Your task to perform on an android device: turn notification dots off Image 0: 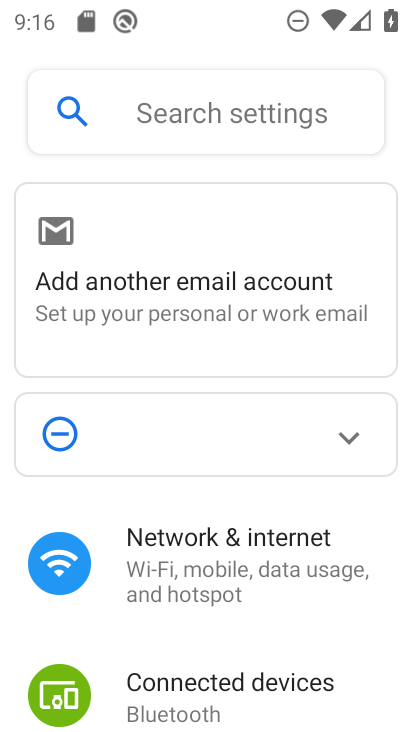
Step 0: drag from (397, 602) to (397, 257)
Your task to perform on an android device: turn notification dots off Image 1: 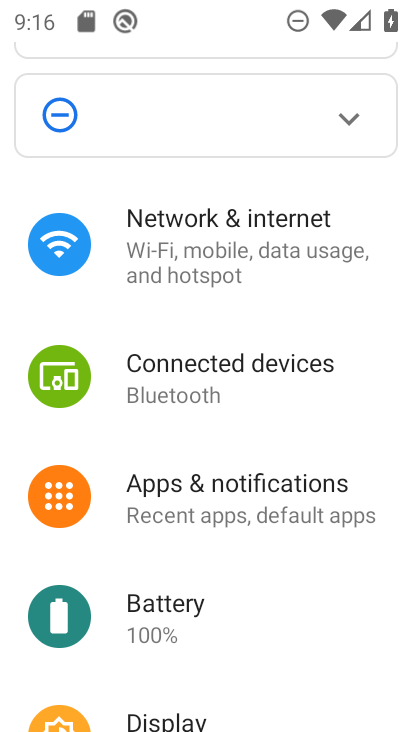
Step 1: click (222, 506)
Your task to perform on an android device: turn notification dots off Image 2: 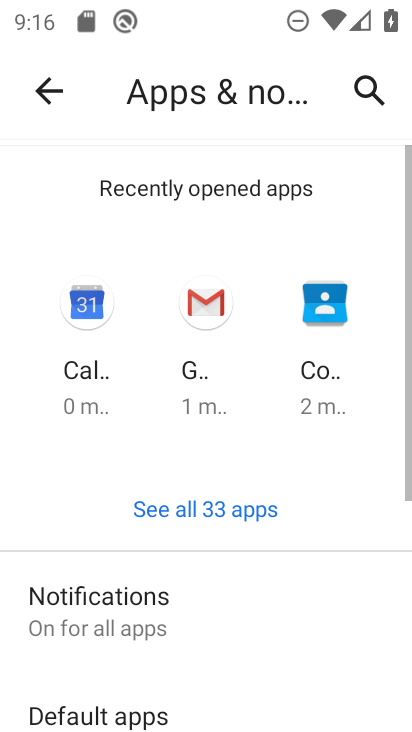
Step 2: click (76, 617)
Your task to perform on an android device: turn notification dots off Image 3: 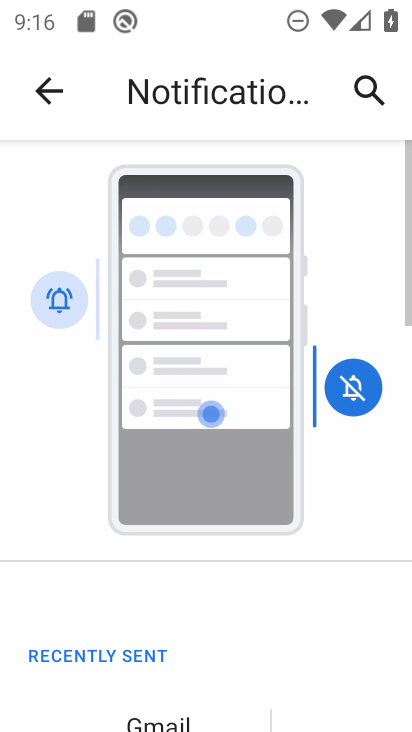
Step 3: drag from (283, 639) to (275, 139)
Your task to perform on an android device: turn notification dots off Image 4: 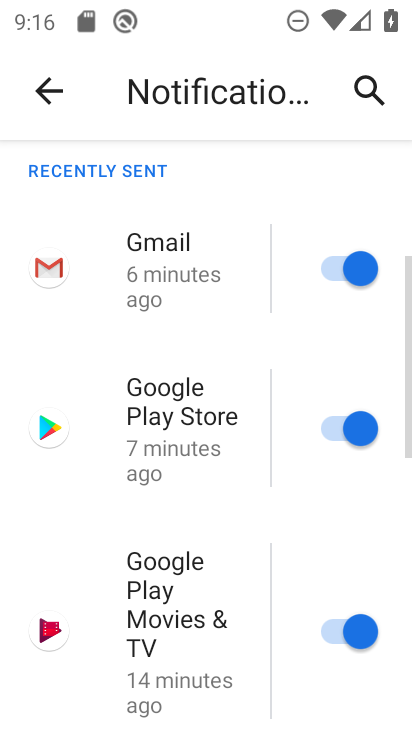
Step 4: drag from (251, 609) to (210, 122)
Your task to perform on an android device: turn notification dots off Image 5: 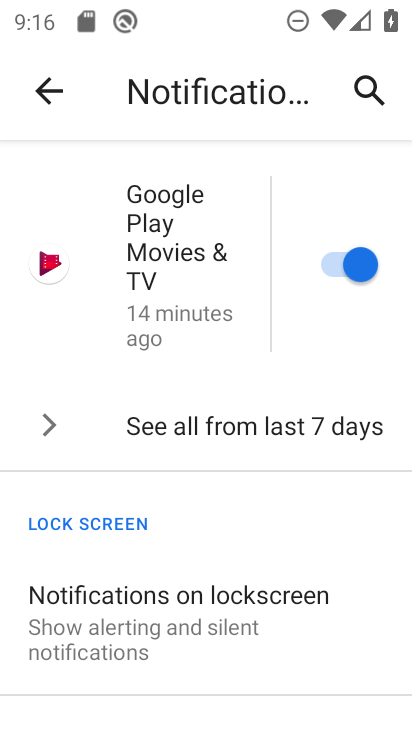
Step 5: drag from (130, 585) to (150, 130)
Your task to perform on an android device: turn notification dots off Image 6: 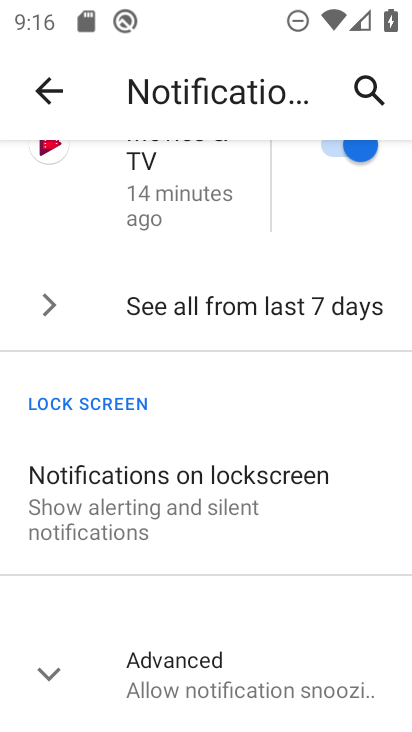
Step 6: click (50, 683)
Your task to perform on an android device: turn notification dots off Image 7: 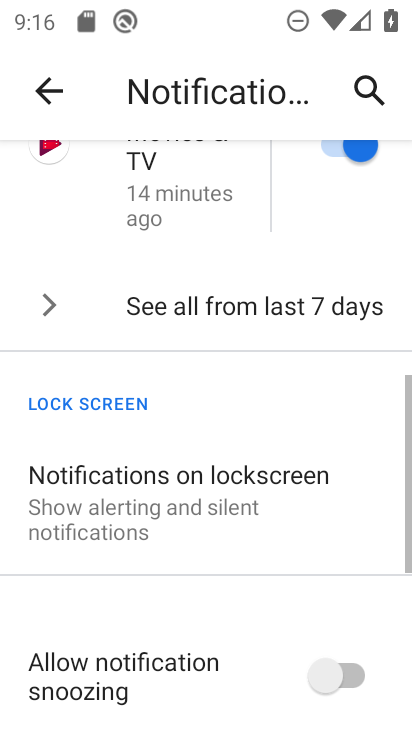
Step 7: drag from (157, 653) to (190, 173)
Your task to perform on an android device: turn notification dots off Image 8: 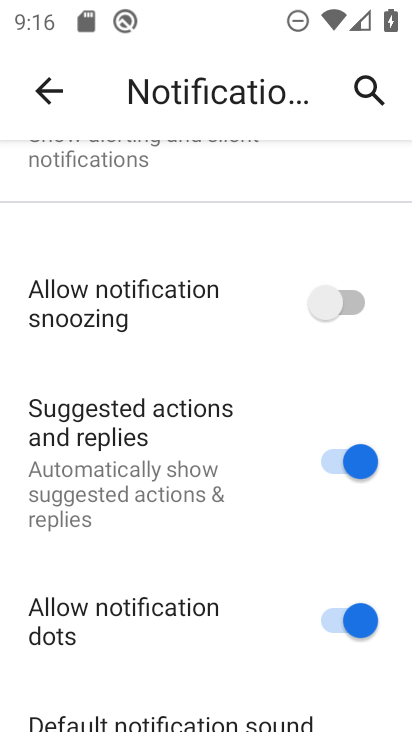
Step 8: click (353, 616)
Your task to perform on an android device: turn notification dots off Image 9: 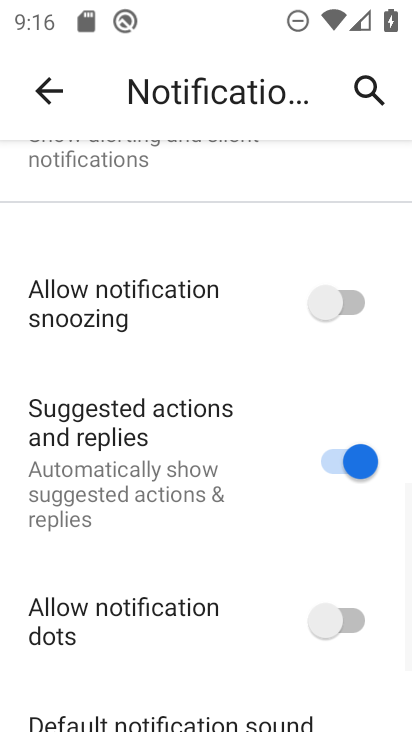
Step 9: task complete